Your task to perform on an android device: Open accessibility settings Image 0: 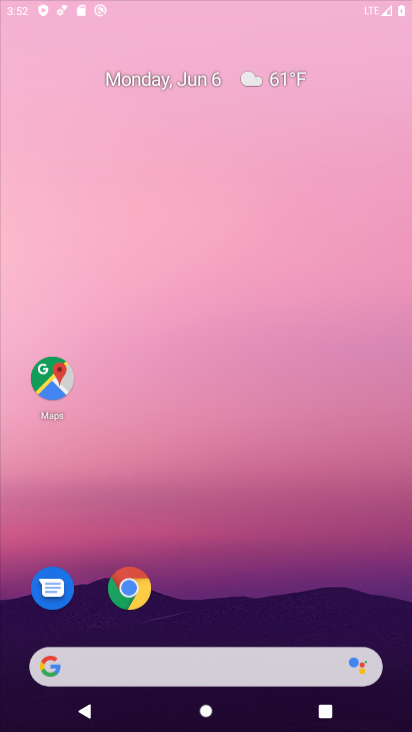
Step 0: drag from (245, 491) to (111, 122)
Your task to perform on an android device: Open accessibility settings Image 1: 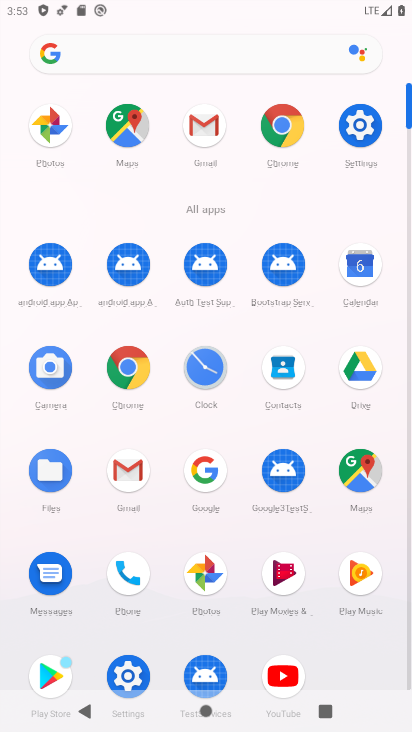
Step 1: click (341, 125)
Your task to perform on an android device: Open accessibility settings Image 2: 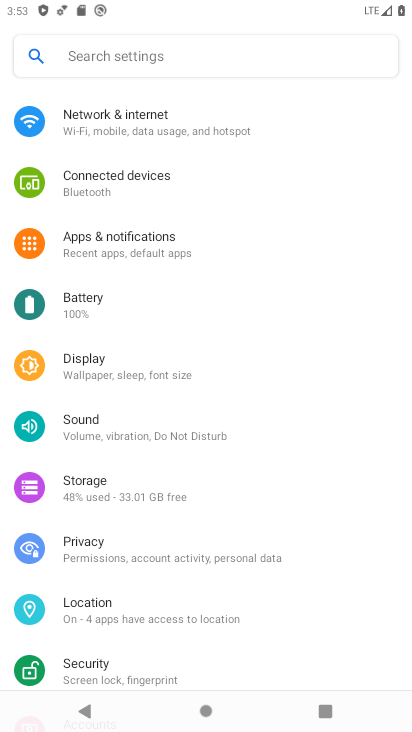
Step 2: drag from (95, 434) to (68, 95)
Your task to perform on an android device: Open accessibility settings Image 3: 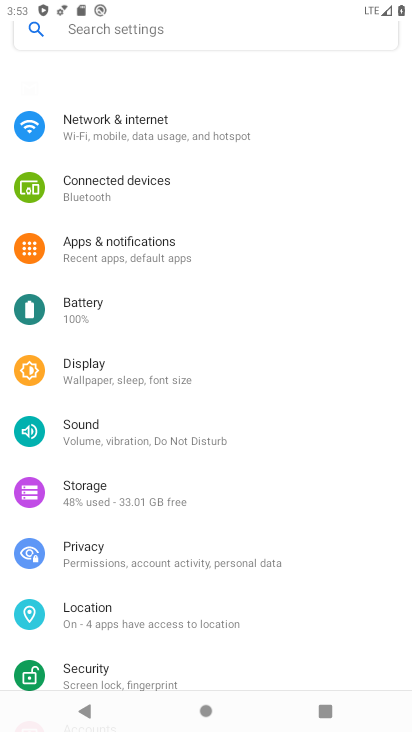
Step 3: drag from (163, 290) to (81, 18)
Your task to perform on an android device: Open accessibility settings Image 4: 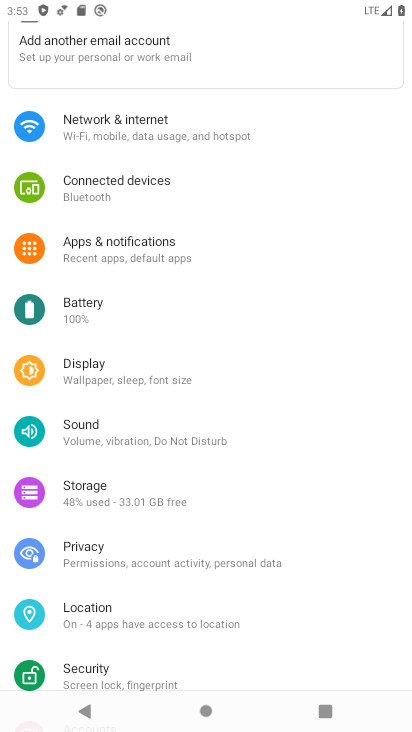
Step 4: drag from (232, 406) to (183, 18)
Your task to perform on an android device: Open accessibility settings Image 5: 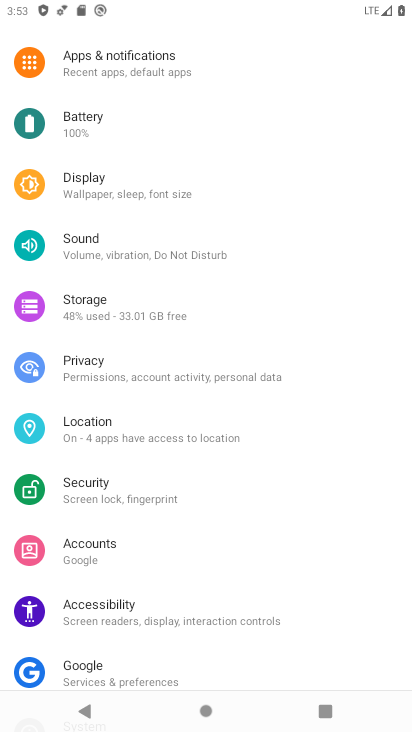
Step 5: click (94, 596)
Your task to perform on an android device: Open accessibility settings Image 6: 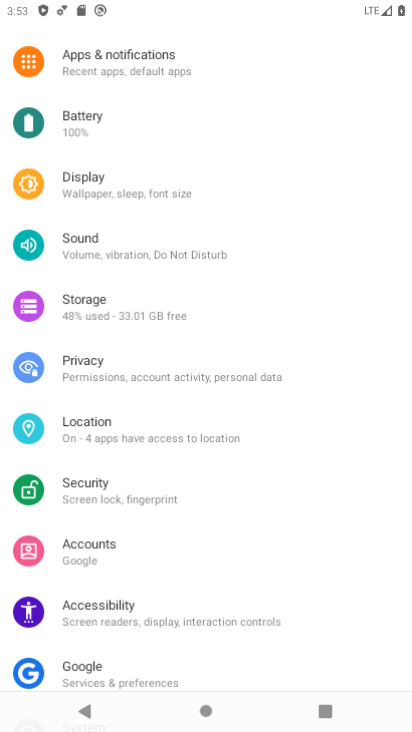
Step 6: click (96, 614)
Your task to perform on an android device: Open accessibility settings Image 7: 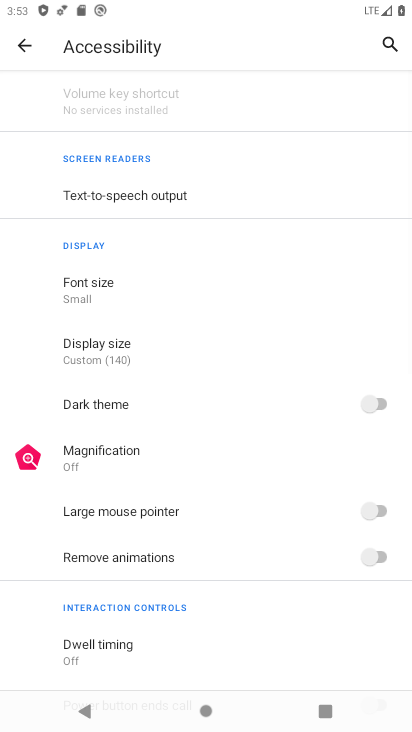
Step 7: task complete